Your task to perform on an android device: delete the emails in spam in the gmail app Image 0: 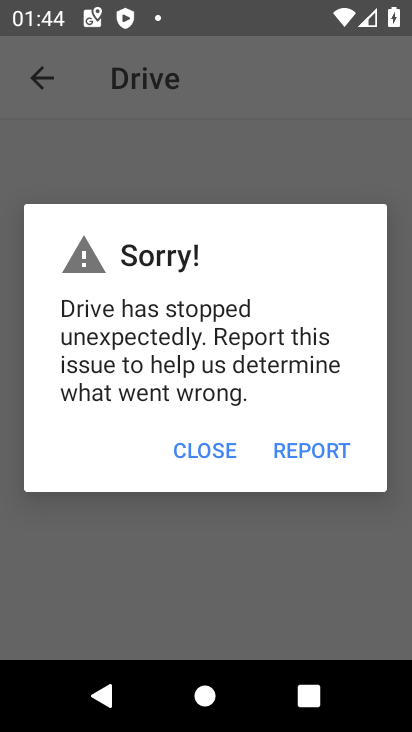
Step 0: press home button
Your task to perform on an android device: delete the emails in spam in the gmail app Image 1: 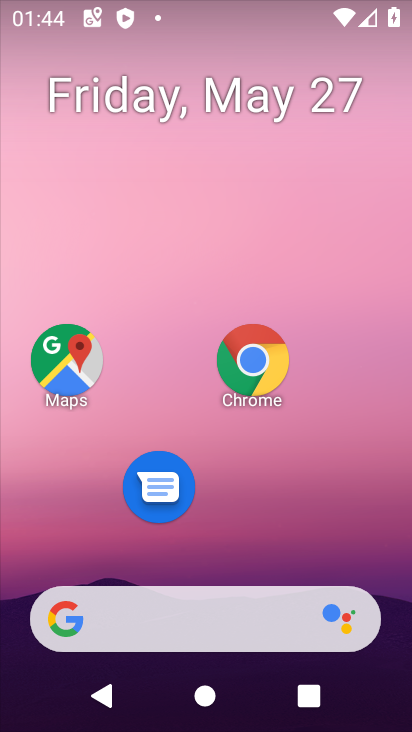
Step 1: drag from (283, 470) to (297, 105)
Your task to perform on an android device: delete the emails in spam in the gmail app Image 2: 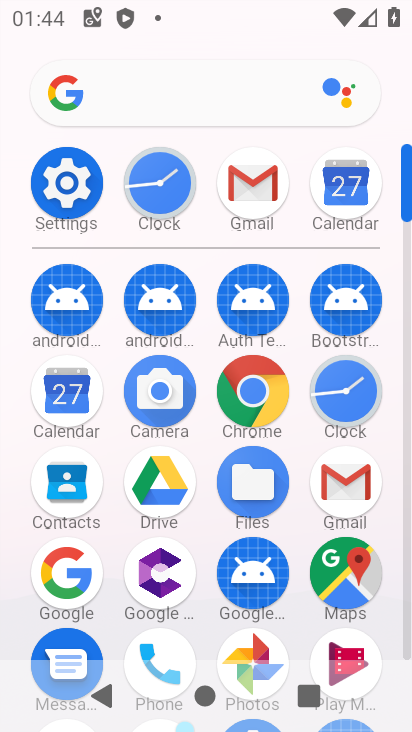
Step 2: click (252, 182)
Your task to perform on an android device: delete the emails in spam in the gmail app Image 3: 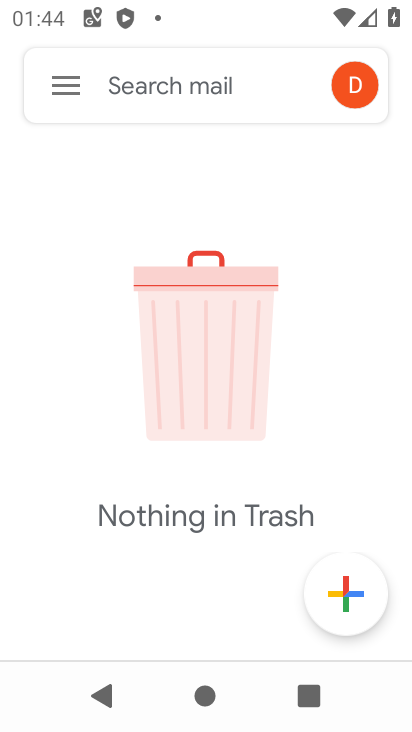
Step 3: click (65, 90)
Your task to perform on an android device: delete the emails in spam in the gmail app Image 4: 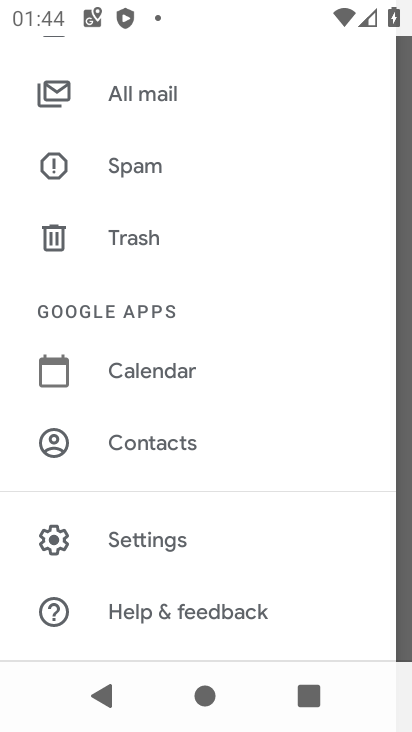
Step 4: click (149, 168)
Your task to perform on an android device: delete the emails in spam in the gmail app Image 5: 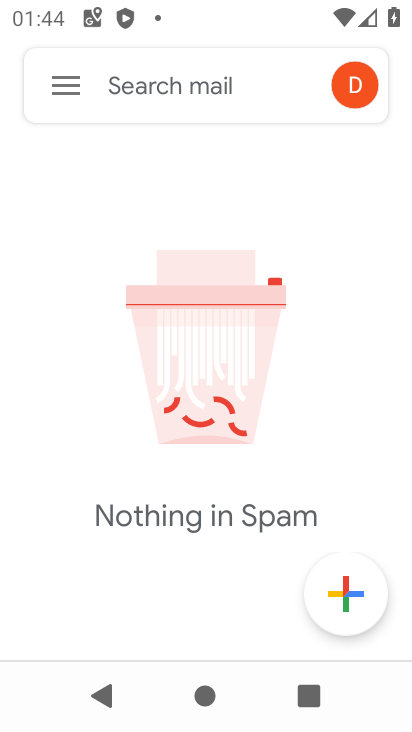
Step 5: task complete